Your task to perform on an android device: Open maps Image 0: 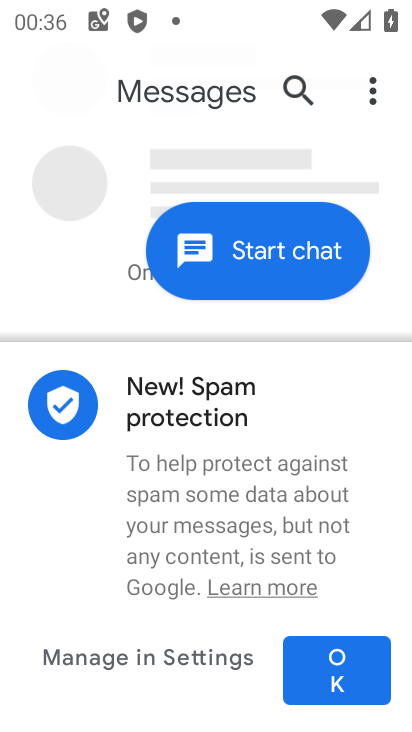
Step 0: press back button
Your task to perform on an android device: Open maps Image 1: 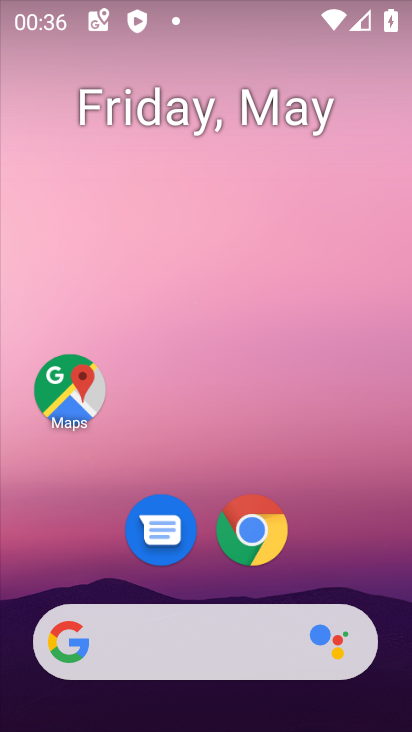
Step 1: click (69, 391)
Your task to perform on an android device: Open maps Image 2: 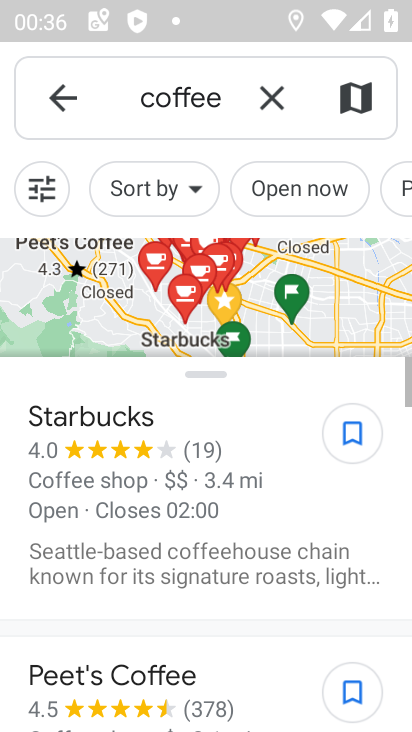
Step 2: click (273, 91)
Your task to perform on an android device: Open maps Image 3: 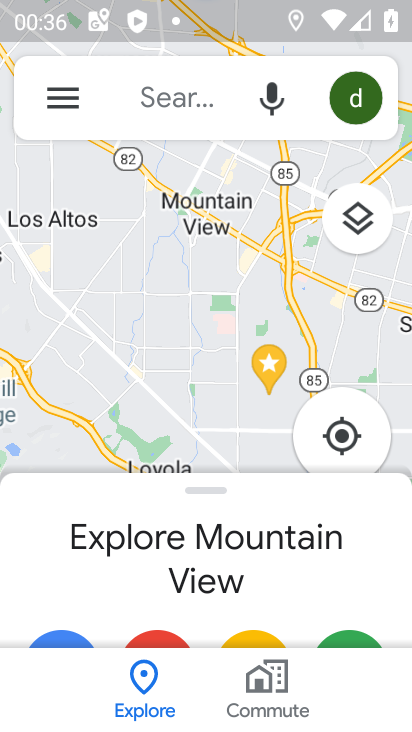
Step 3: task complete